Your task to perform on an android device: Open Yahoo.com Image 0: 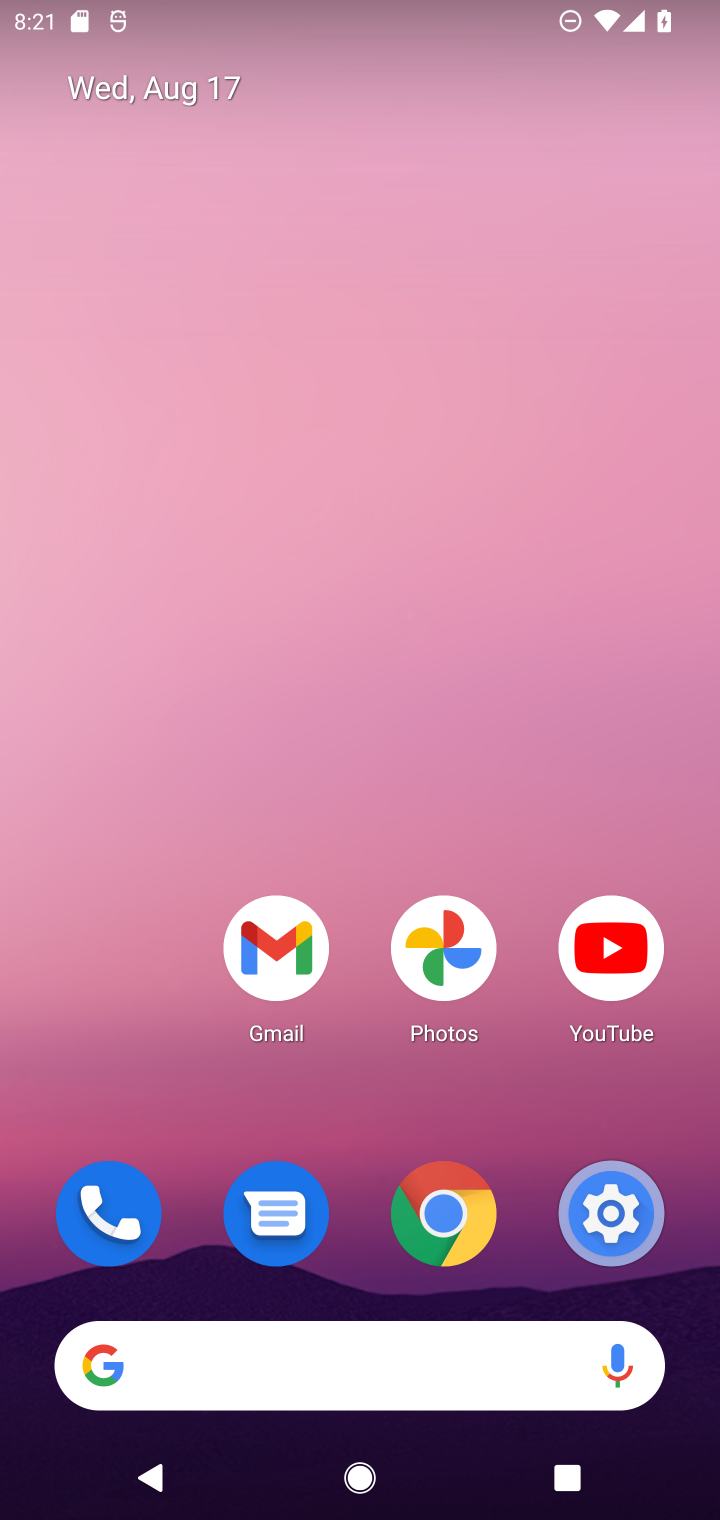
Step 0: click (464, 1252)
Your task to perform on an android device: Open Yahoo.com Image 1: 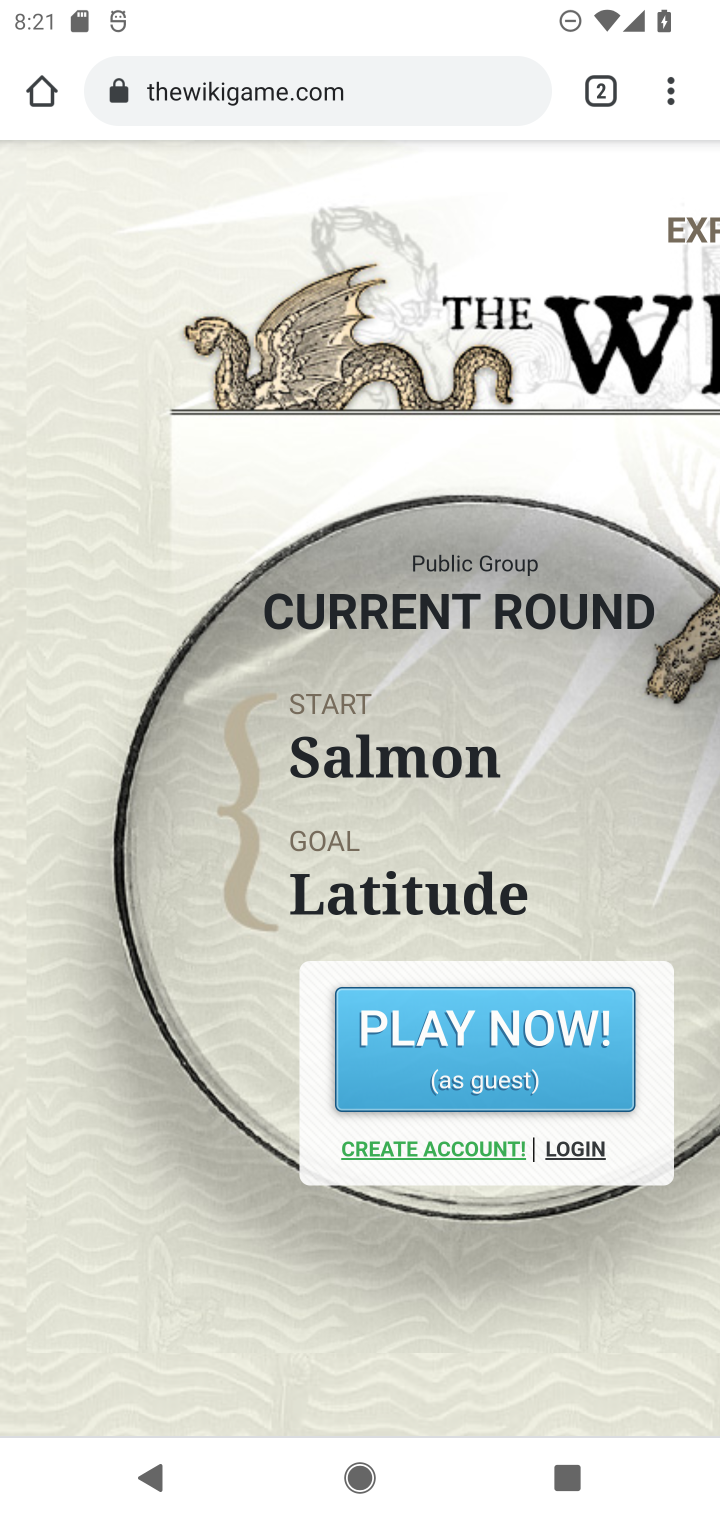
Step 1: click (421, 96)
Your task to perform on an android device: Open Yahoo.com Image 2: 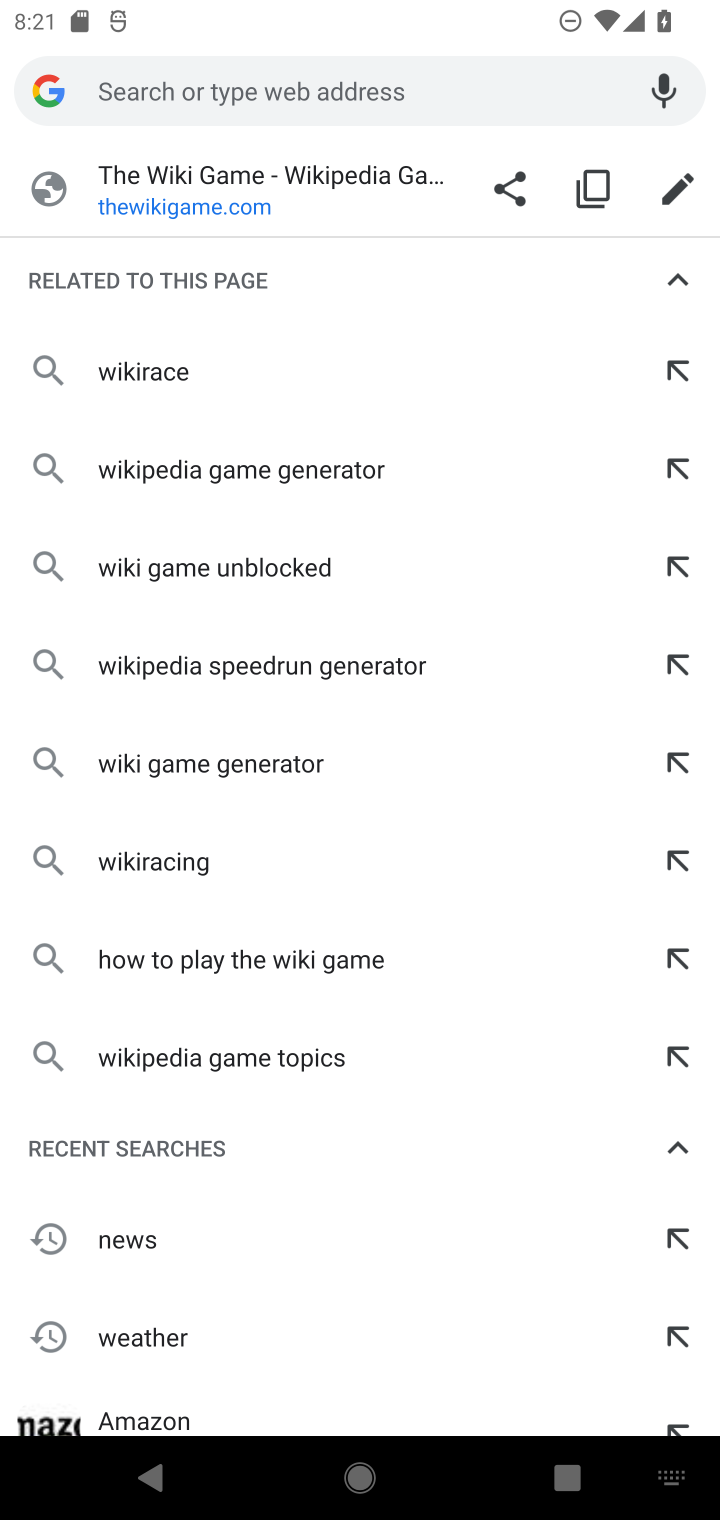
Step 2: type "yahoo.com"
Your task to perform on an android device: Open Yahoo.com Image 3: 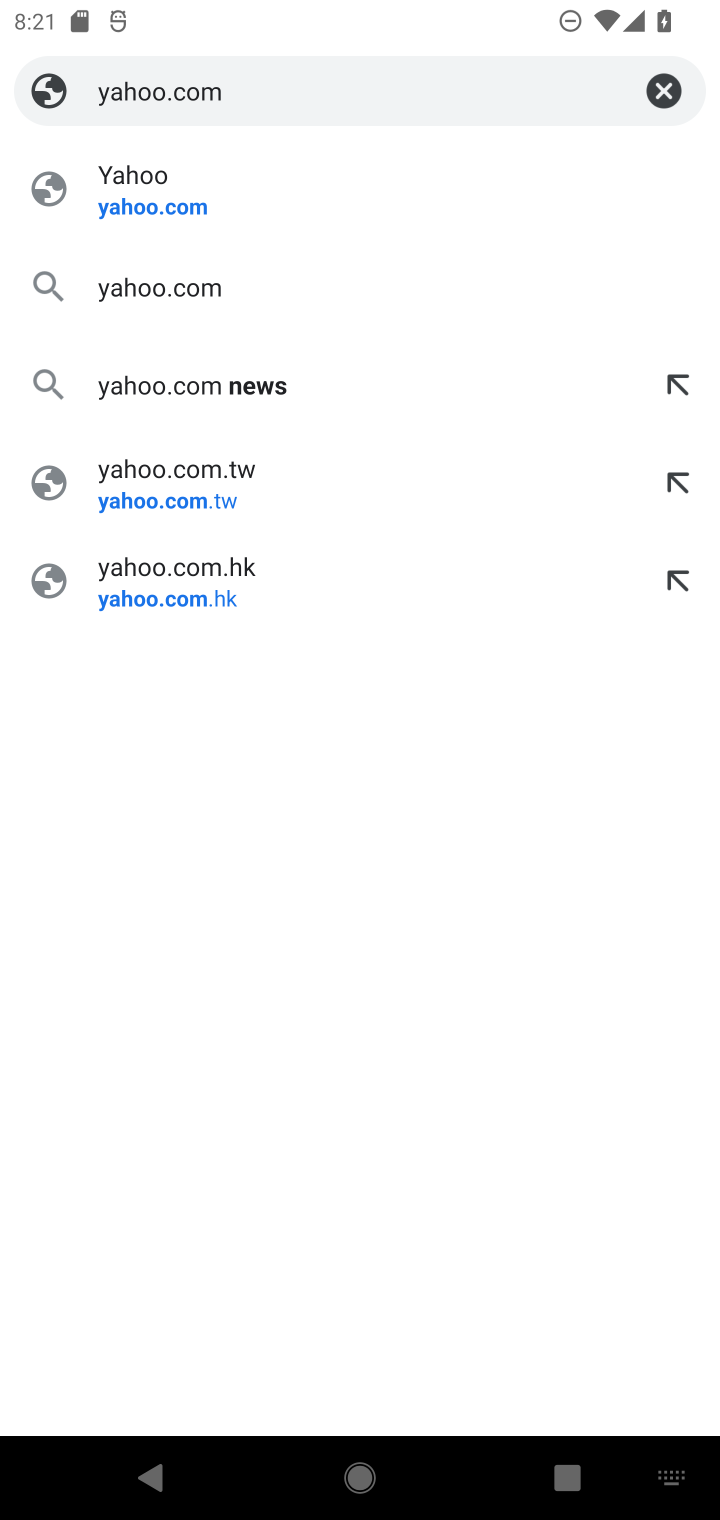
Step 3: click (245, 172)
Your task to perform on an android device: Open Yahoo.com Image 4: 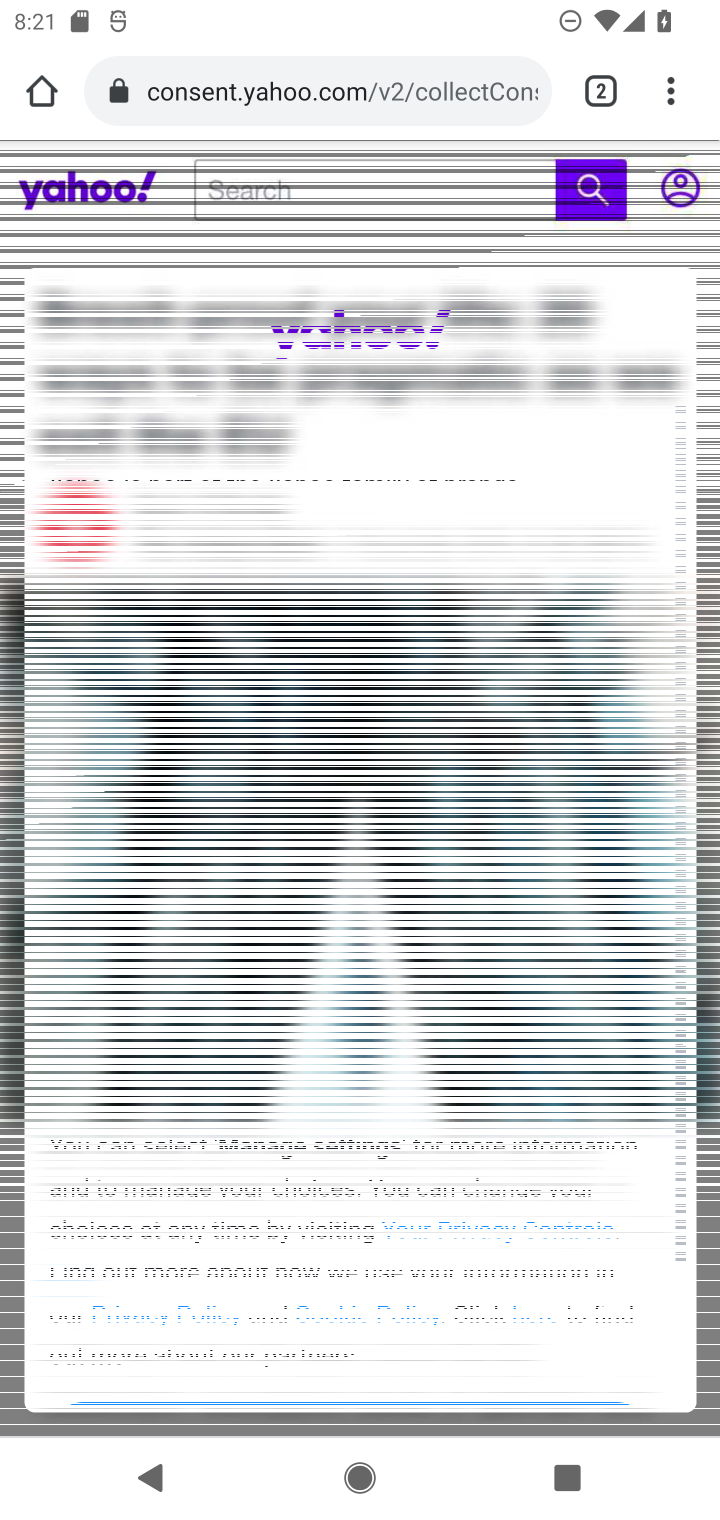
Step 4: task complete